Your task to perform on an android device: Go to display settings Image 0: 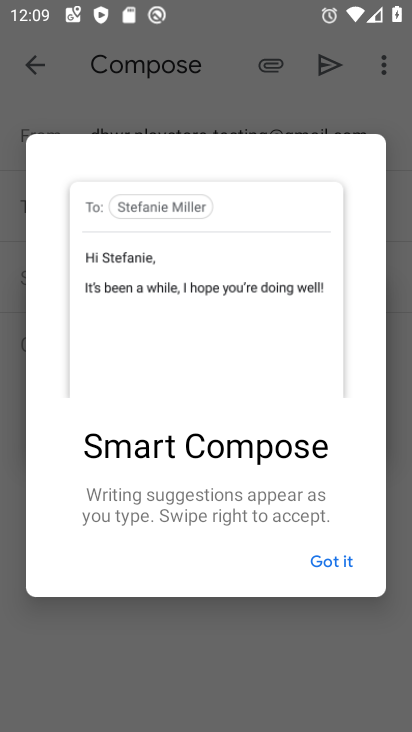
Step 0: press home button
Your task to perform on an android device: Go to display settings Image 1: 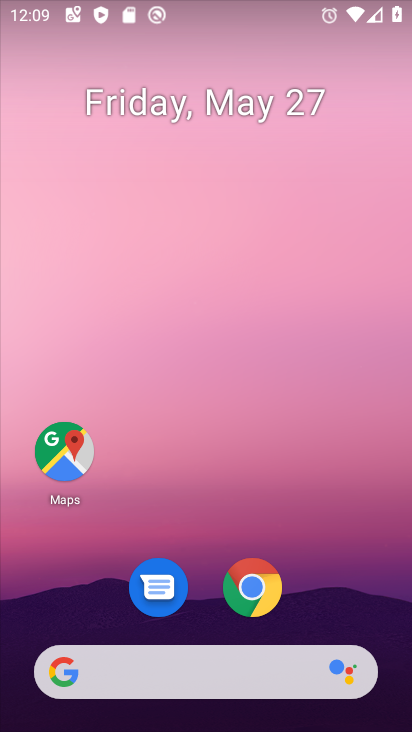
Step 1: drag from (233, 713) to (218, 181)
Your task to perform on an android device: Go to display settings Image 2: 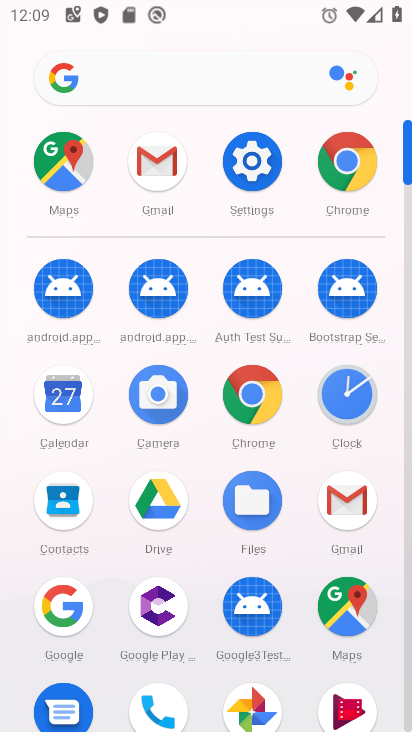
Step 2: click (245, 148)
Your task to perform on an android device: Go to display settings Image 3: 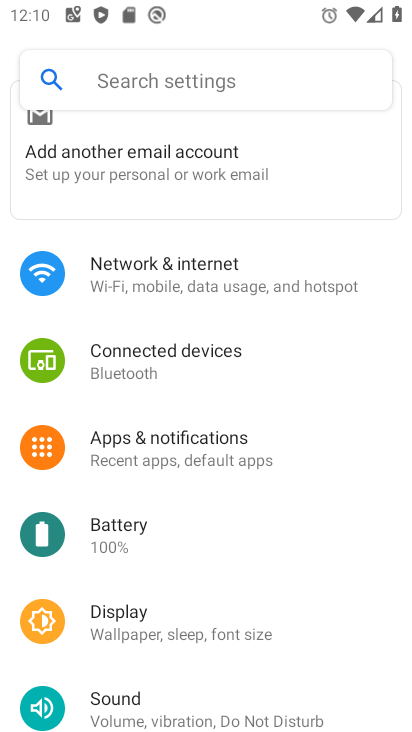
Step 3: click (146, 605)
Your task to perform on an android device: Go to display settings Image 4: 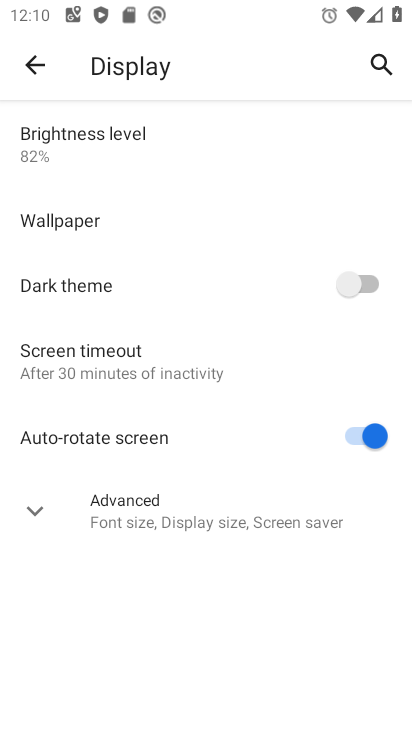
Step 4: task complete